Your task to perform on an android device: turn on wifi Image 0: 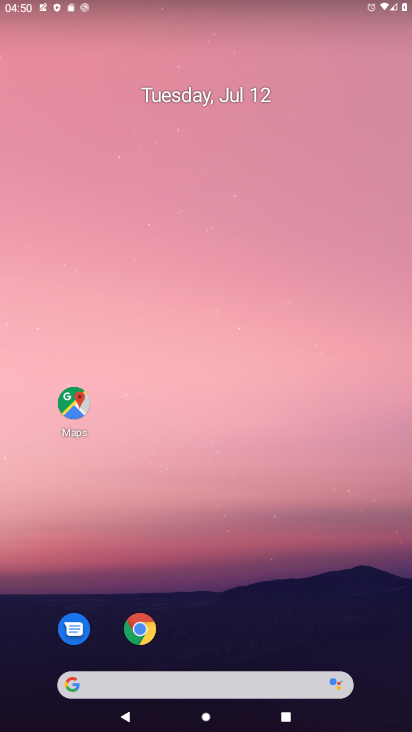
Step 0: press home button
Your task to perform on an android device: turn on wifi Image 1: 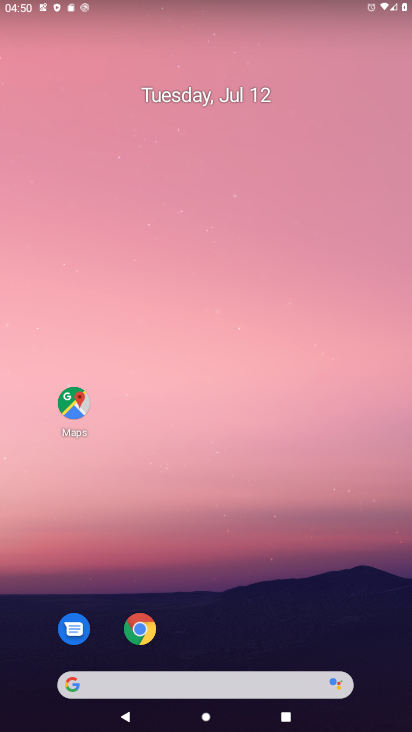
Step 1: task complete